Your task to perform on an android device: Search for hotels in Paris Image 0: 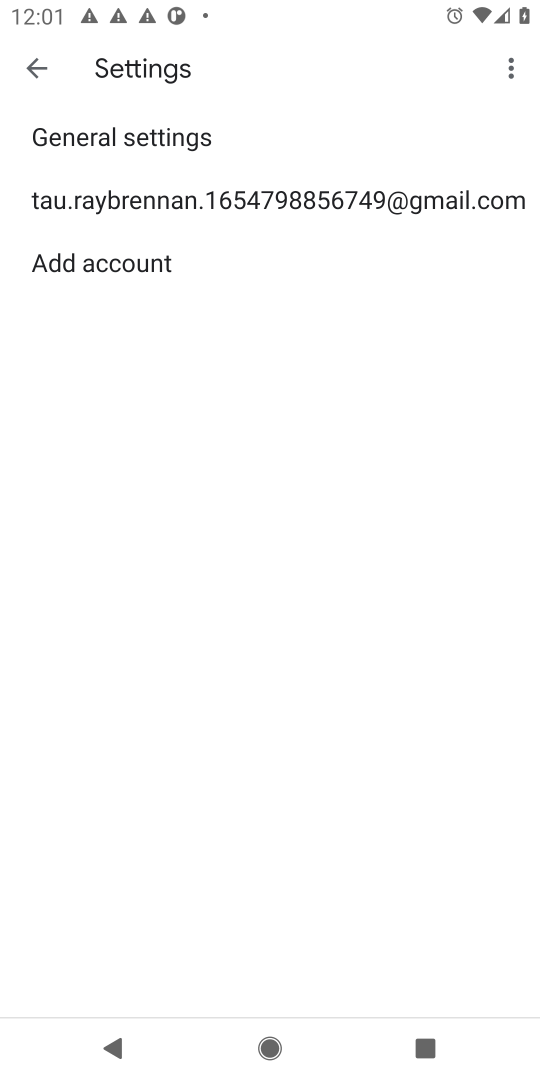
Step 0: press home button
Your task to perform on an android device: Search for hotels in Paris Image 1: 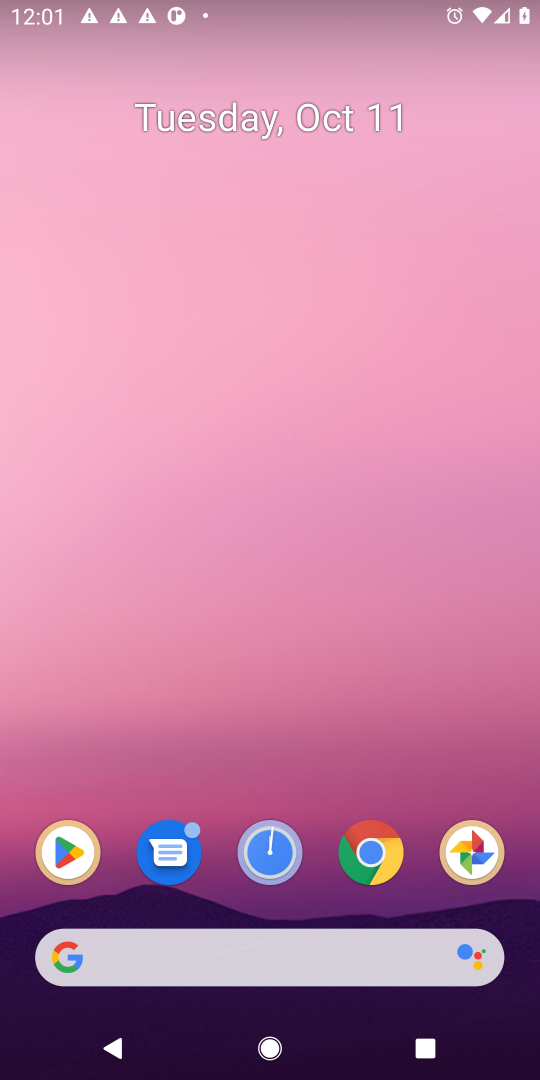
Step 1: click (372, 857)
Your task to perform on an android device: Search for hotels in Paris Image 2: 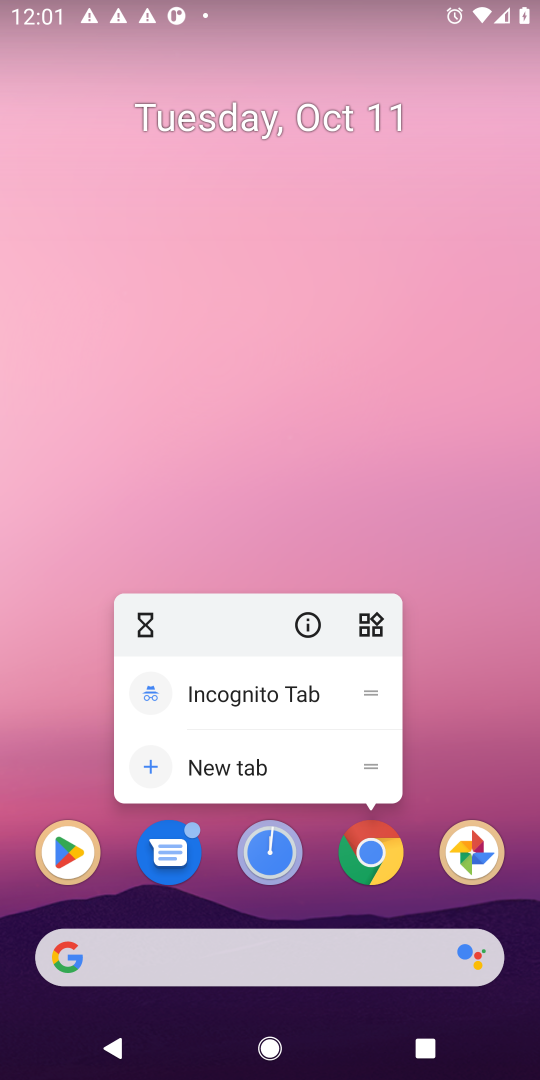
Step 2: click (372, 857)
Your task to perform on an android device: Search for hotels in Paris Image 3: 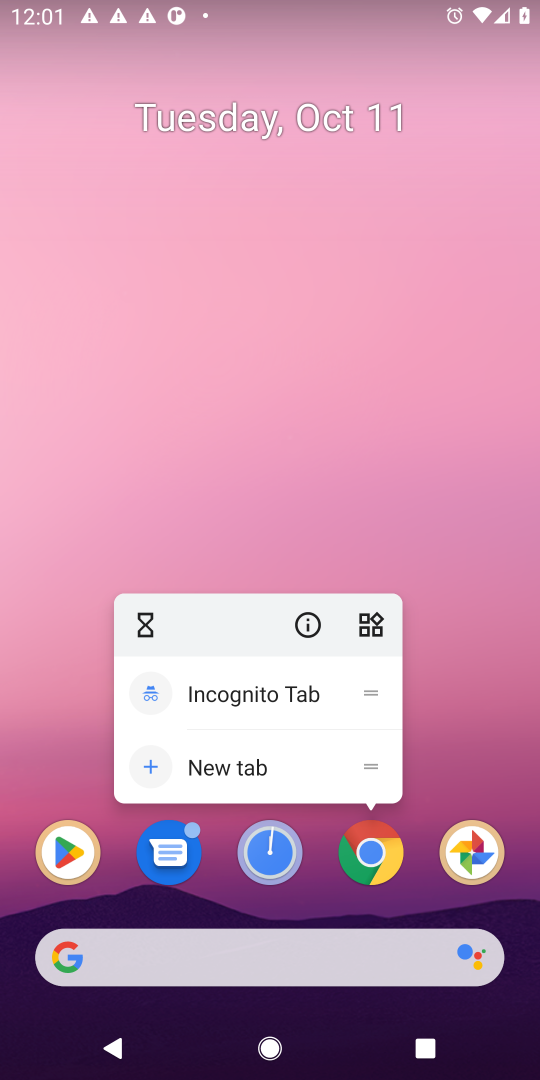
Step 3: click (372, 857)
Your task to perform on an android device: Search for hotels in Paris Image 4: 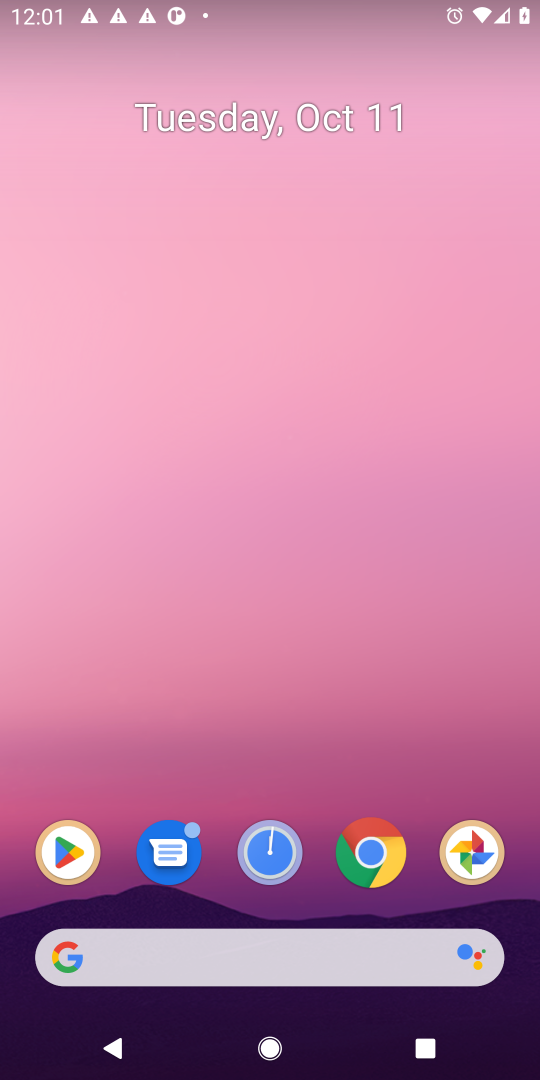
Step 4: click (372, 857)
Your task to perform on an android device: Search for hotels in Paris Image 5: 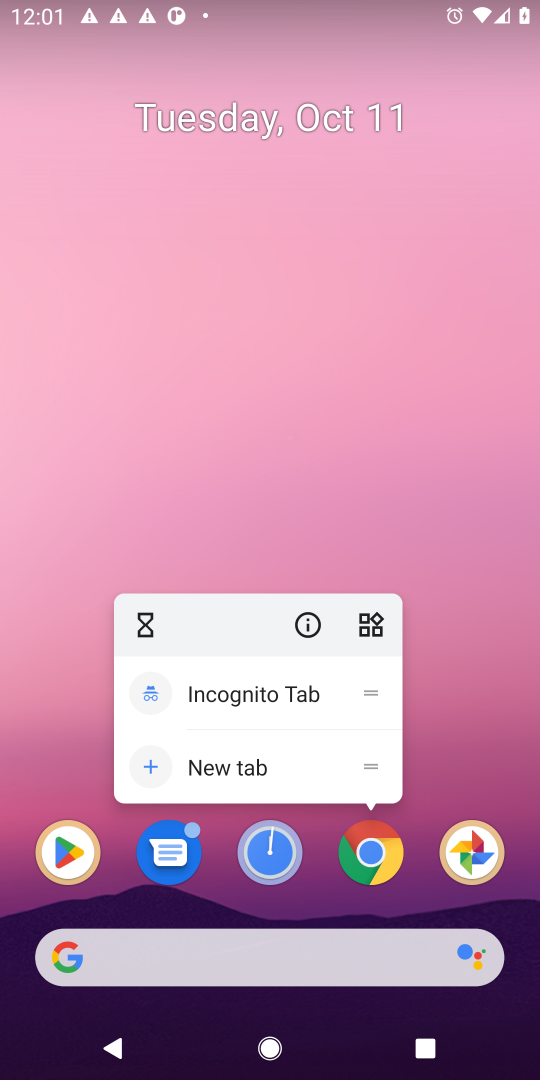
Step 5: click (372, 857)
Your task to perform on an android device: Search for hotels in Paris Image 6: 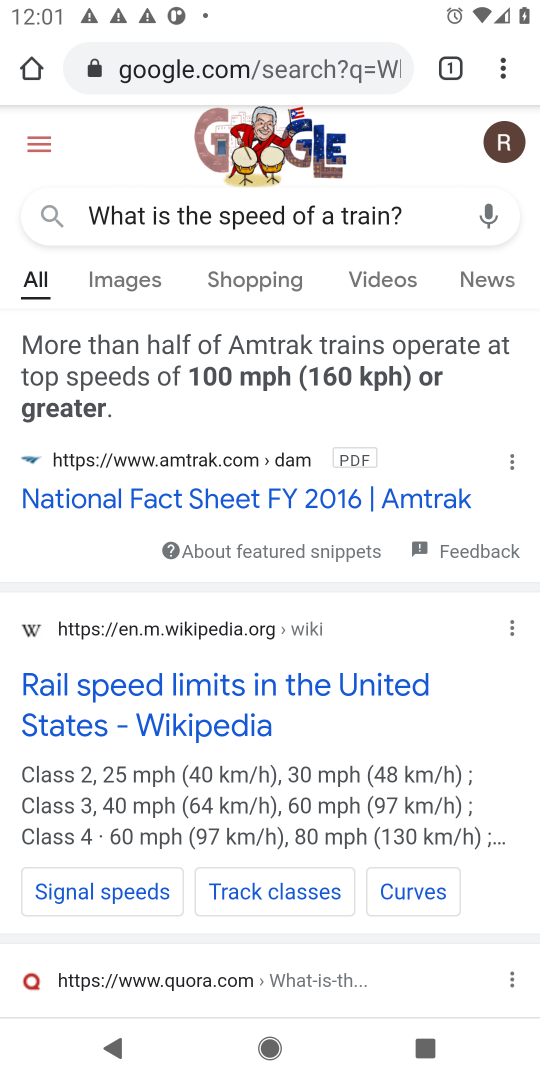
Step 6: click (204, 67)
Your task to perform on an android device: Search for hotels in Paris Image 7: 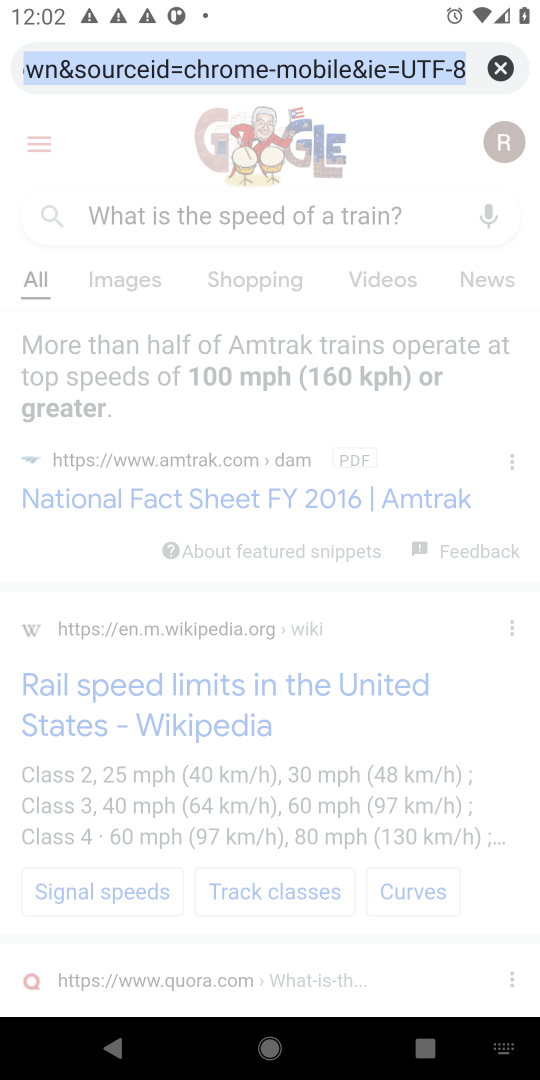
Step 7: type "Search for hotels in Paris"
Your task to perform on an android device: Search for hotels in Paris Image 8: 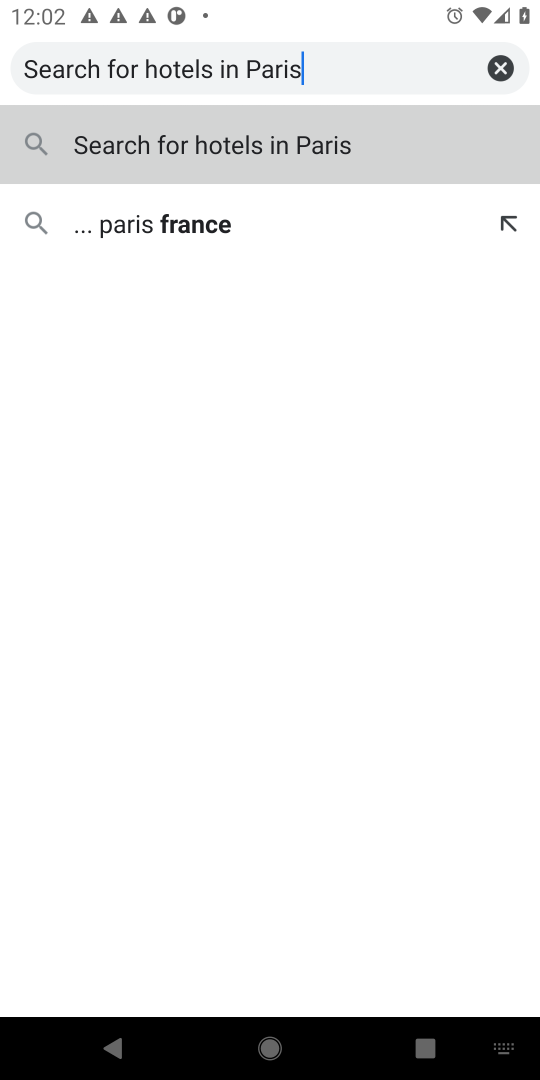
Step 8: click (377, 162)
Your task to perform on an android device: Search for hotels in Paris Image 9: 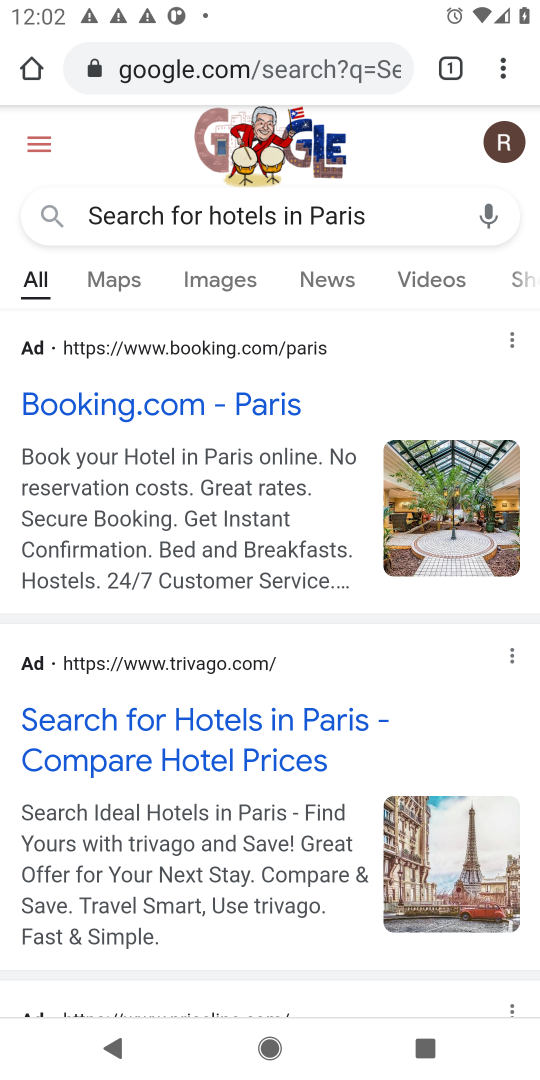
Step 9: click (265, 177)
Your task to perform on an android device: Search for hotels in Paris Image 10: 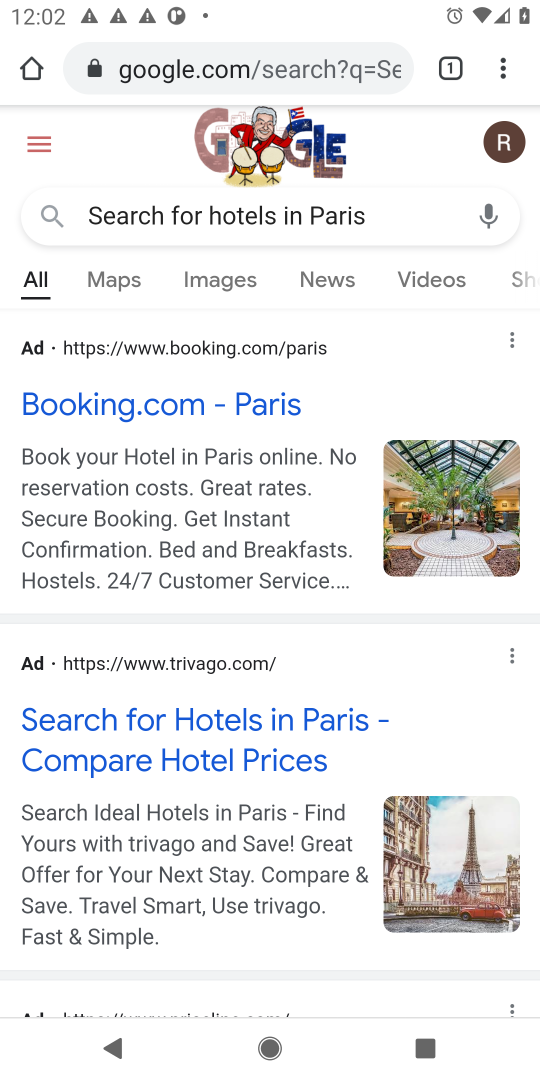
Step 10: task complete